Your task to perform on an android device: Is it going to rain today? Image 0: 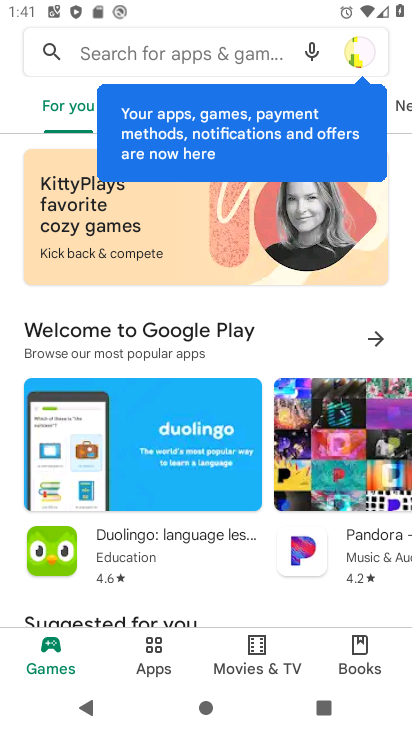
Step 0: press home button
Your task to perform on an android device: Is it going to rain today? Image 1: 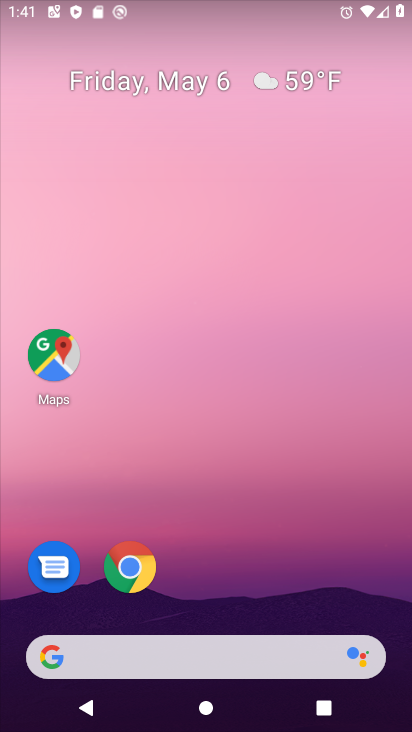
Step 1: click (282, 76)
Your task to perform on an android device: Is it going to rain today? Image 2: 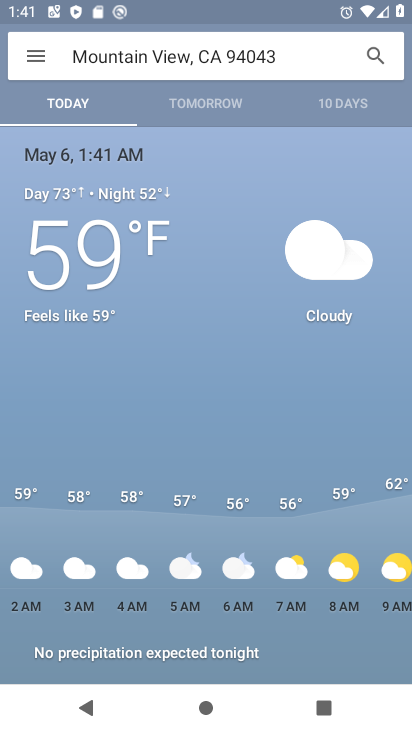
Step 2: task complete